Your task to perform on an android device: delete browsing data in the chrome app Image 0: 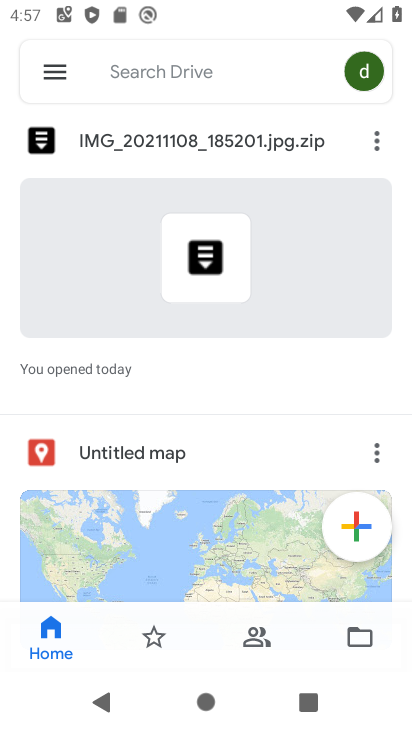
Step 0: press home button
Your task to perform on an android device: delete browsing data in the chrome app Image 1: 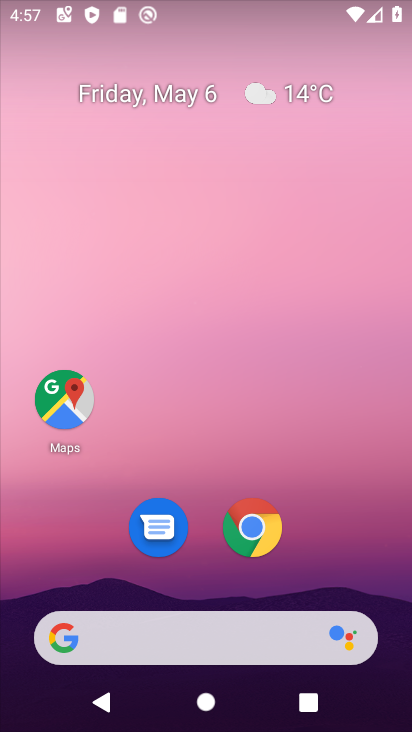
Step 1: click (282, 547)
Your task to perform on an android device: delete browsing data in the chrome app Image 2: 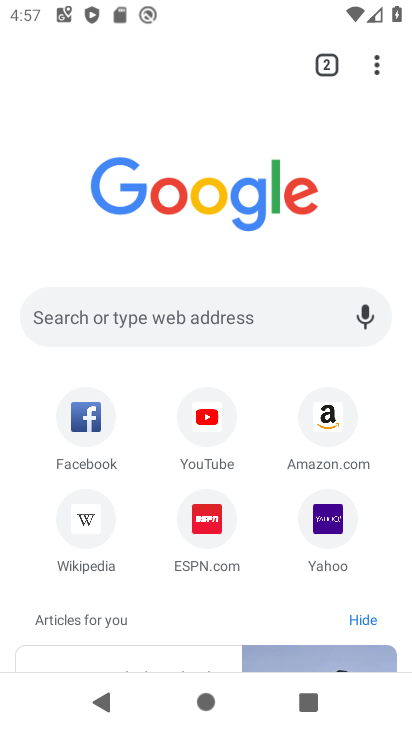
Step 2: drag from (381, 69) to (140, 374)
Your task to perform on an android device: delete browsing data in the chrome app Image 3: 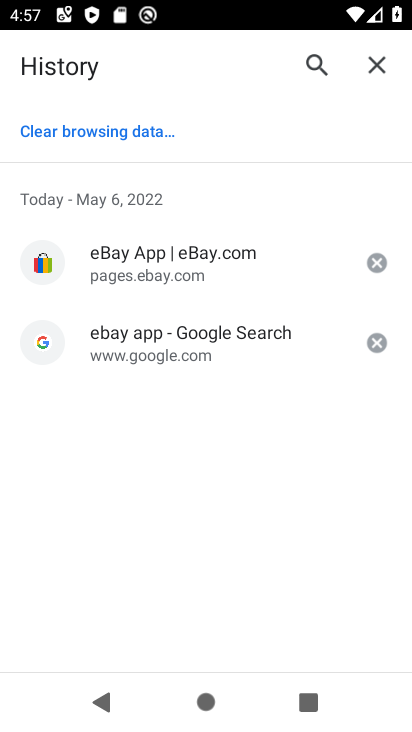
Step 3: click (101, 127)
Your task to perform on an android device: delete browsing data in the chrome app Image 4: 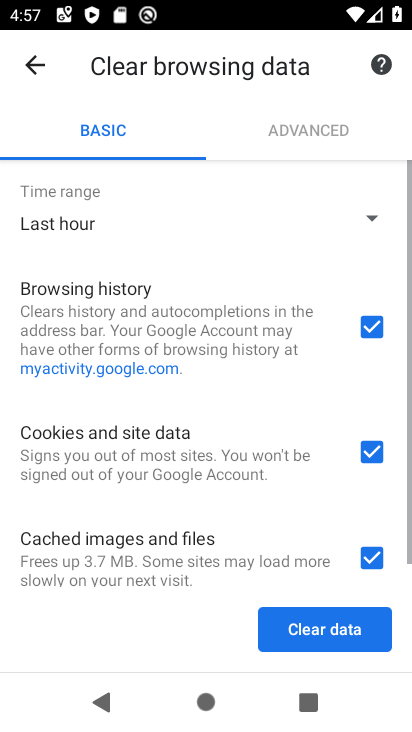
Step 4: click (326, 630)
Your task to perform on an android device: delete browsing data in the chrome app Image 5: 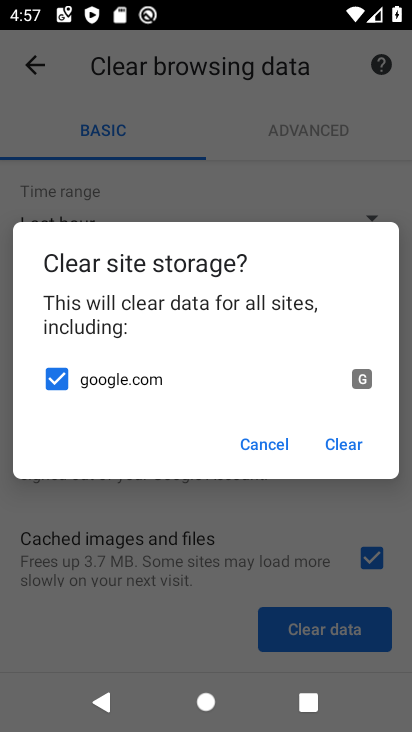
Step 5: click (349, 443)
Your task to perform on an android device: delete browsing data in the chrome app Image 6: 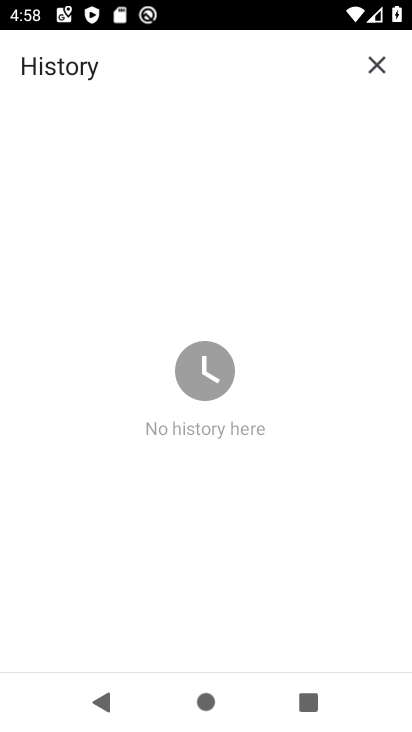
Step 6: task complete